Your task to perform on an android device: set the timer Image 0: 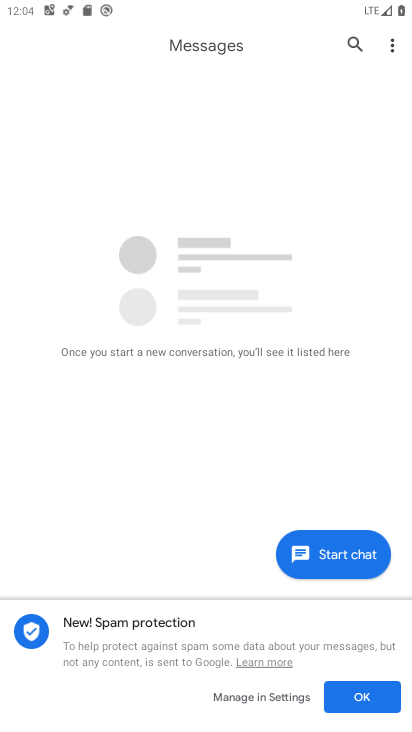
Step 0: press home button
Your task to perform on an android device: set the timer Image 1: 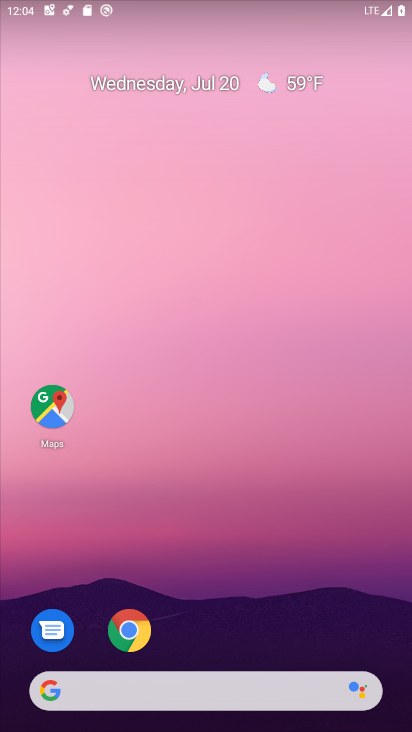
Step 1: drag from (350, 638) to (302, 156)
Your task to perform on an android device: set the timer Image 2: 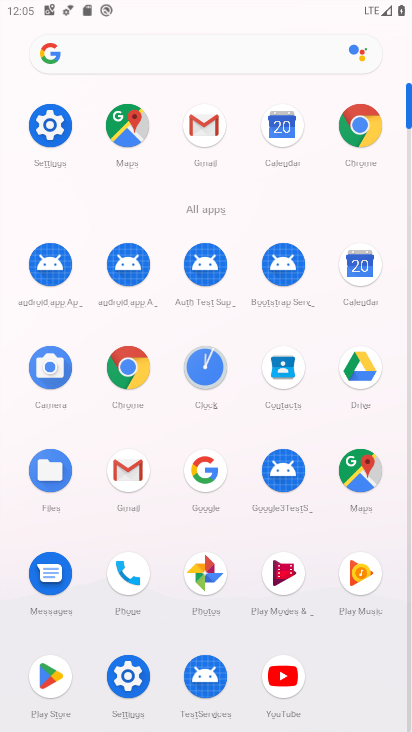
Step 2: click (204, 368)
Your task to perform on an android device: set the timer Image 3: 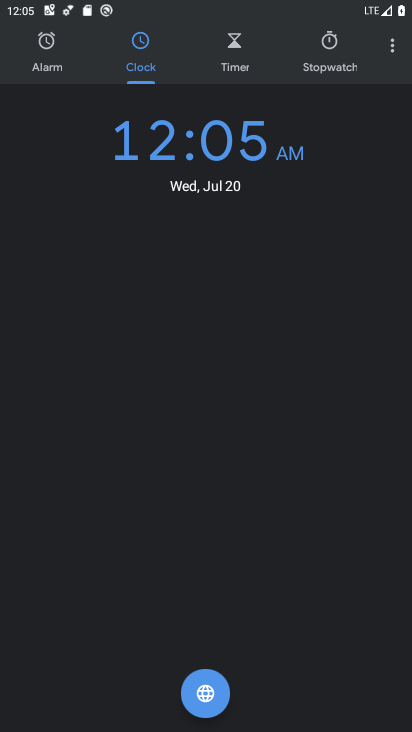
Step 3: click (233, 48)
Your task to perform on an android device: set the timer Image 4: 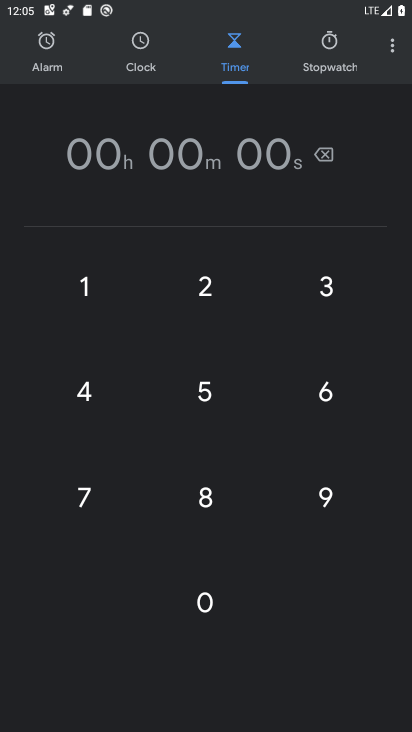
Step 4: click (90, 285)
Your task to perform on an android device: set the timer Image 5: 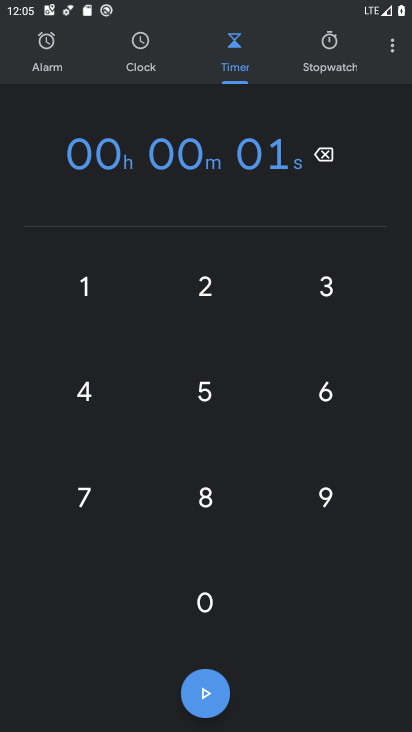
Step 5: click (337, 276)
Your task to perform on an android device: set the timer Image 6: 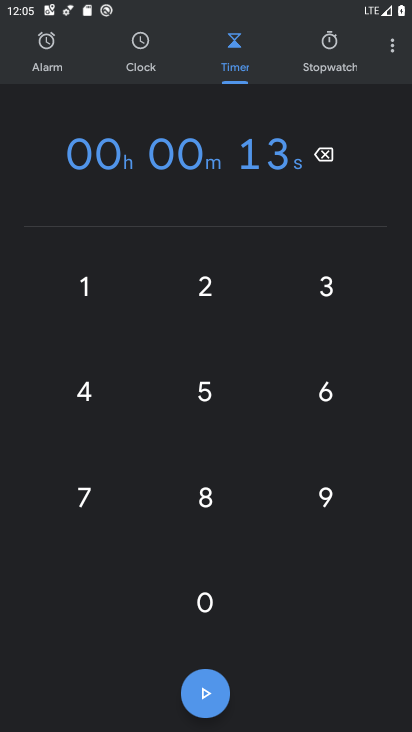
Step 6: click (204, 605)
Your task to perform on an android device: set the timer Image 7: 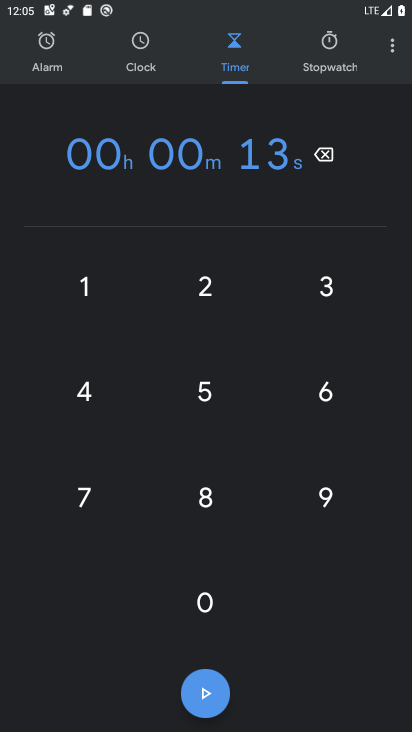
Step 7: click (204, 605)
Your task to perform on an android device: set the timer Image 8: 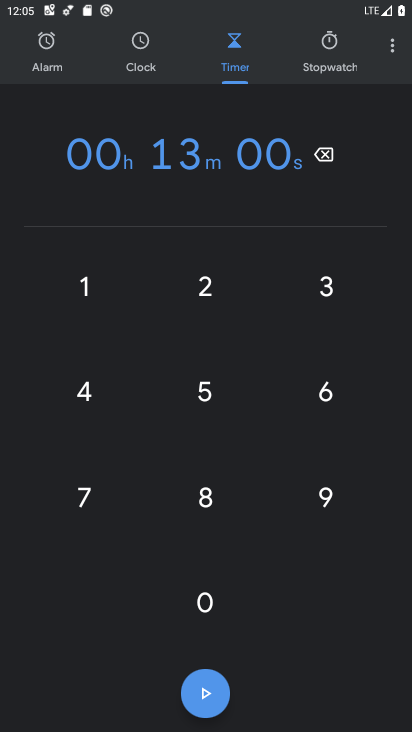
Step 8: click (204, 605)
Your task to perform on an android device: set the timer Image 9: 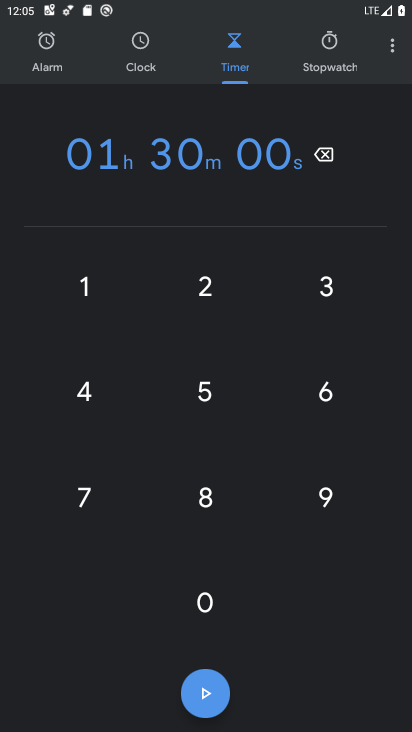
Step 9: task complete